Your task to perform on an android device: change your default location settings in chrome Image 0: 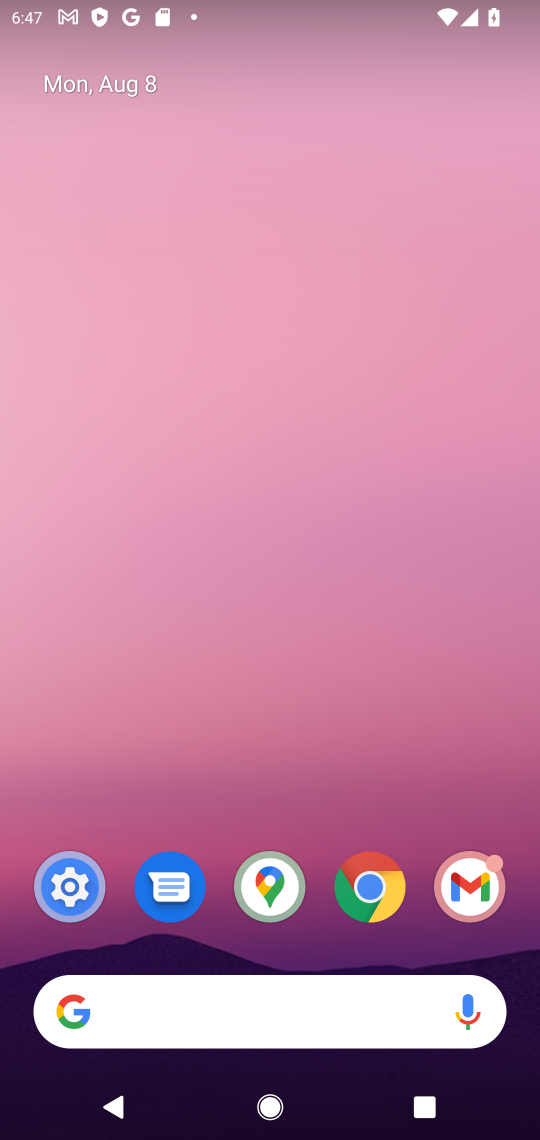
Step 0: drag from (416, 798) to (322, 83)
Your task to perform on an android device: change your default location settings in chrome Image 1: 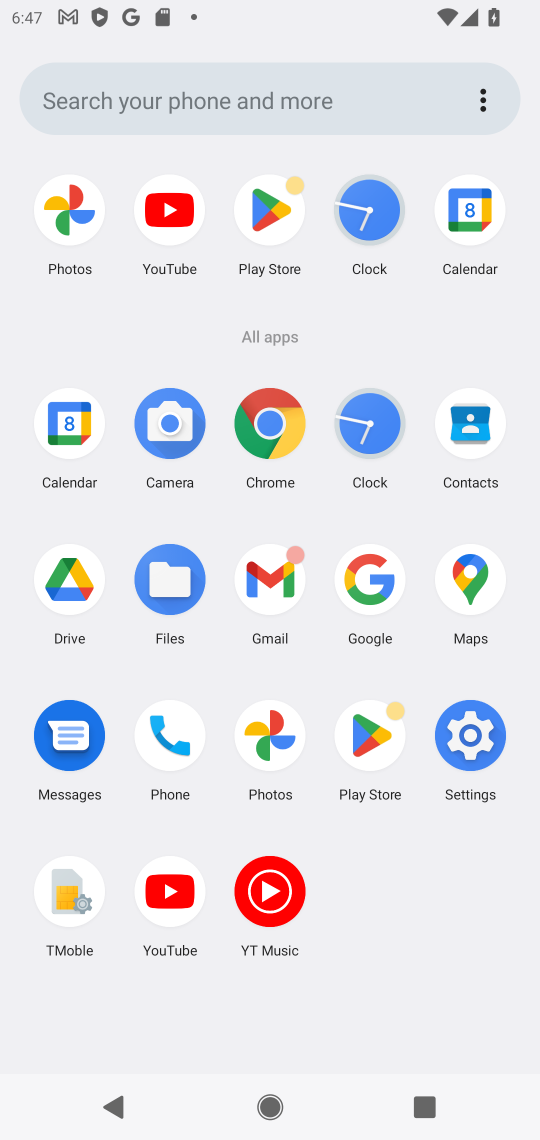
Step 1: click (270, 435)
Your task to perform on an android device: change your default location settings in chrome Image 2: 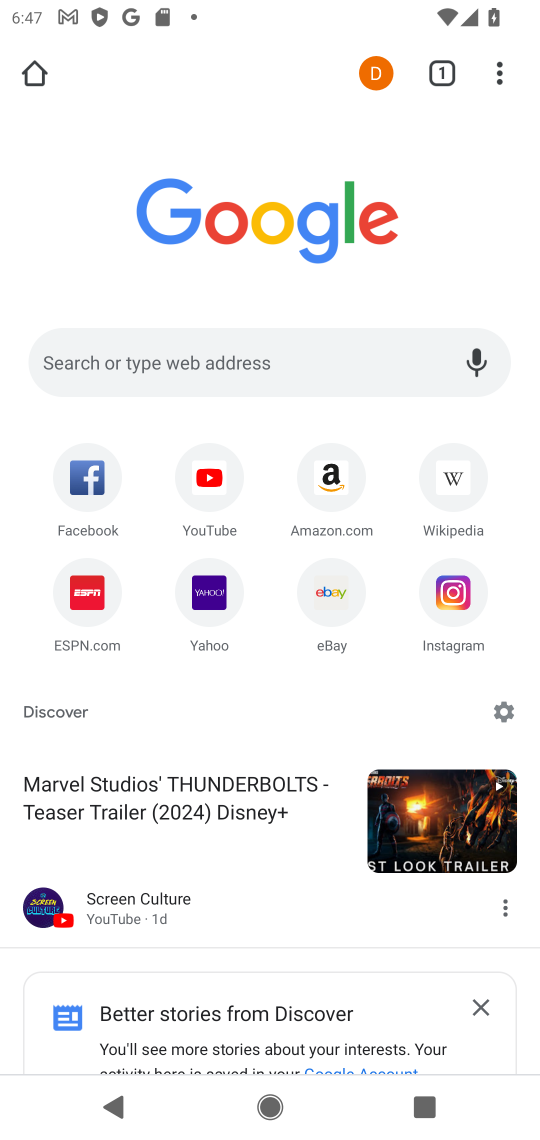
Step 2: click (484, 57)
Your task to perform on an android device: change your default location settings in chrome Image 3: 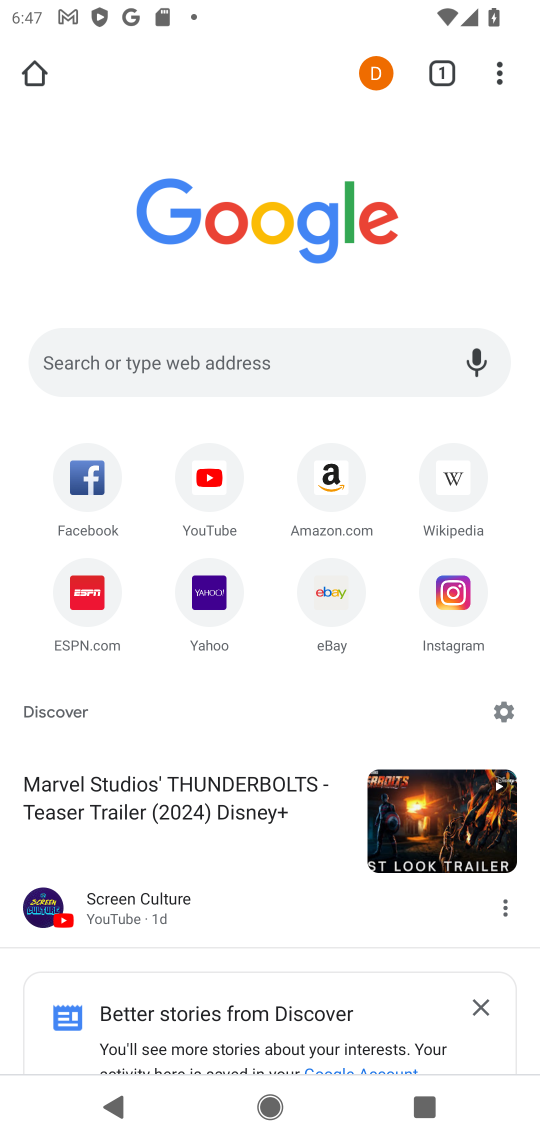
Step 3: click (484, 57)
Your task to perform on an android device: change your default location settings in chrome Image 4: 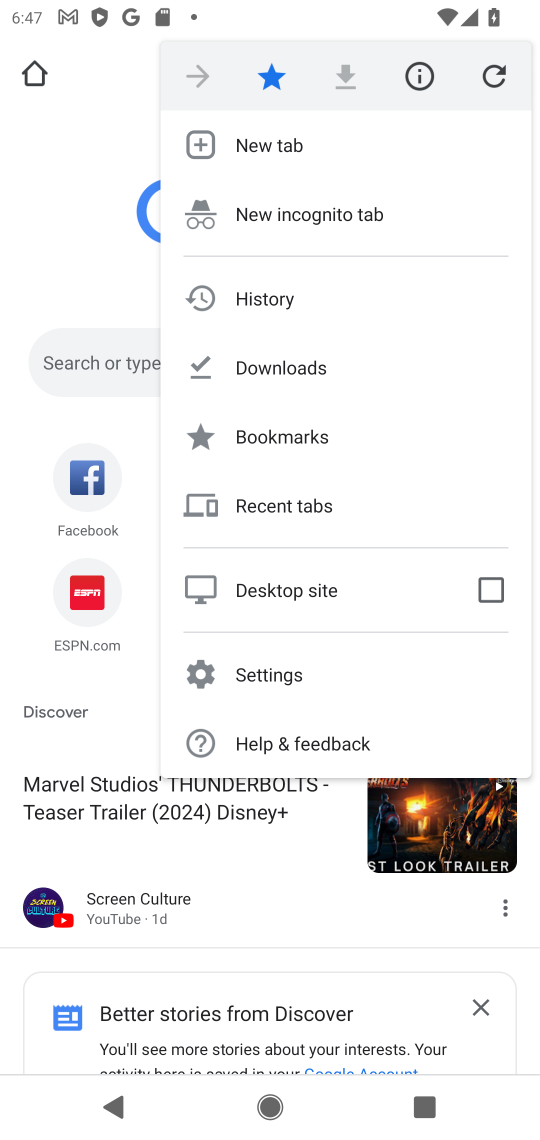
Step 4: click (311, 679)
Your task to perform on an android device: change your default location settings in chrome Image 5: 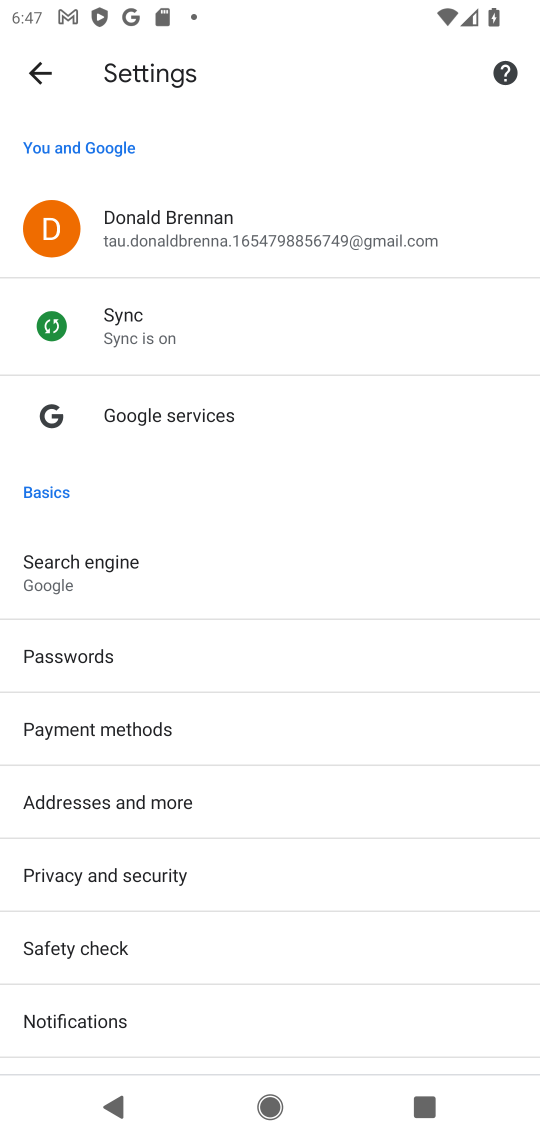
Step 5: drag from (283, 953) to (219, 420)
Your task to perform on an android device: change your default location settings in chrome Image 6: 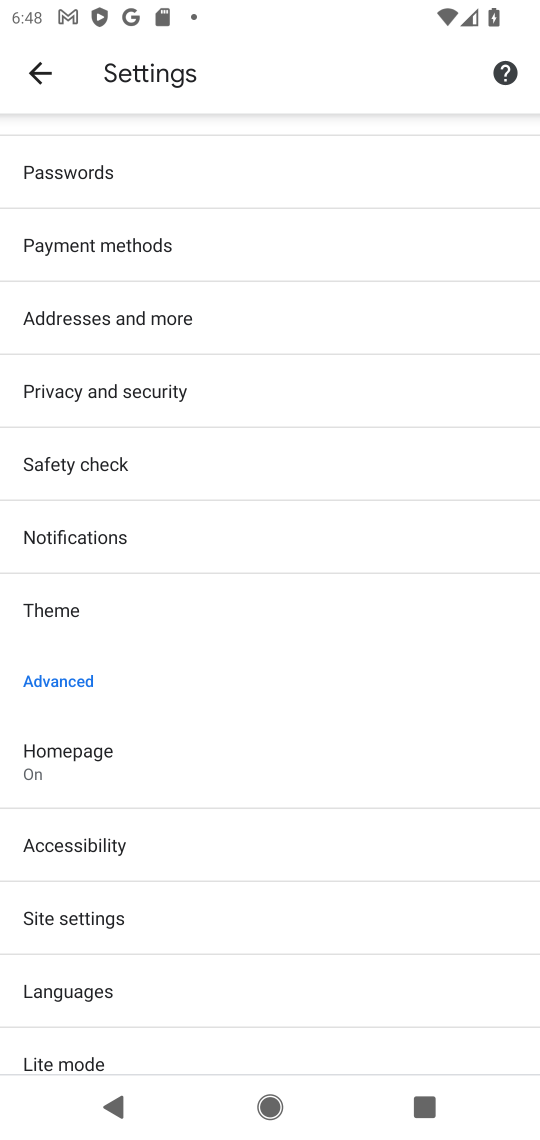
Step 6: click (239, 931)
Your task to perform on an android device: change your default location settings in chrome Image 7: 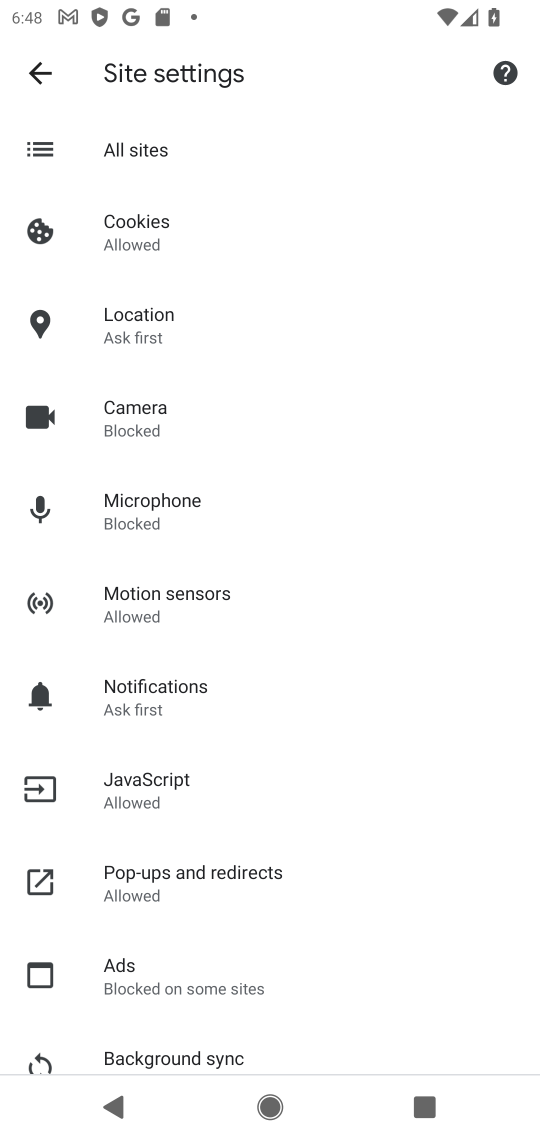
Step 7: click (161, 339)
Your task to perform on an android device: change your default location settings in chrome Image 8: 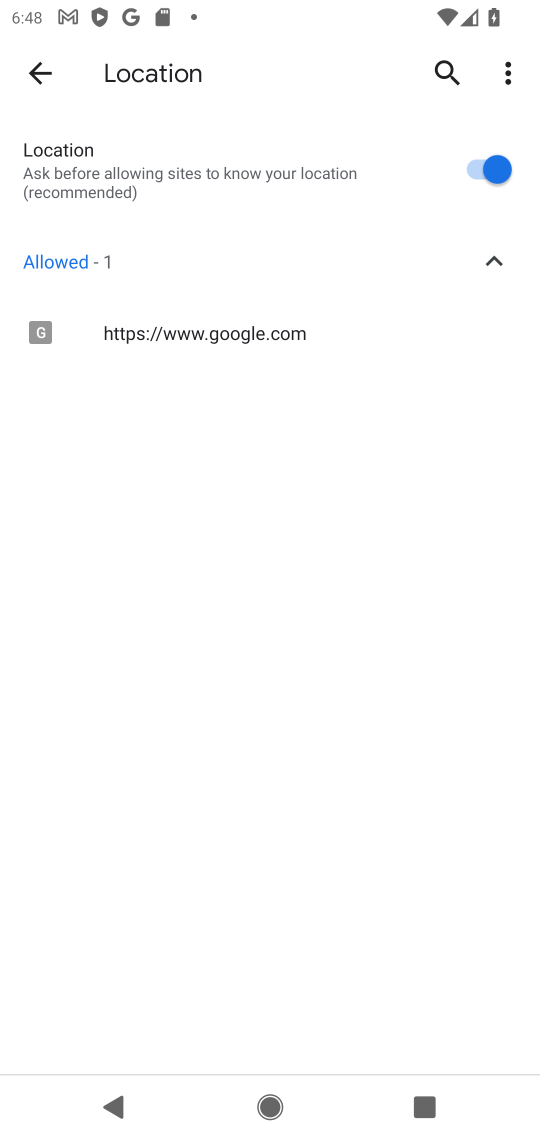
Step 8: click (505, 67)
Your task to perform on an android device: change your default location settings in chrome Image 9: 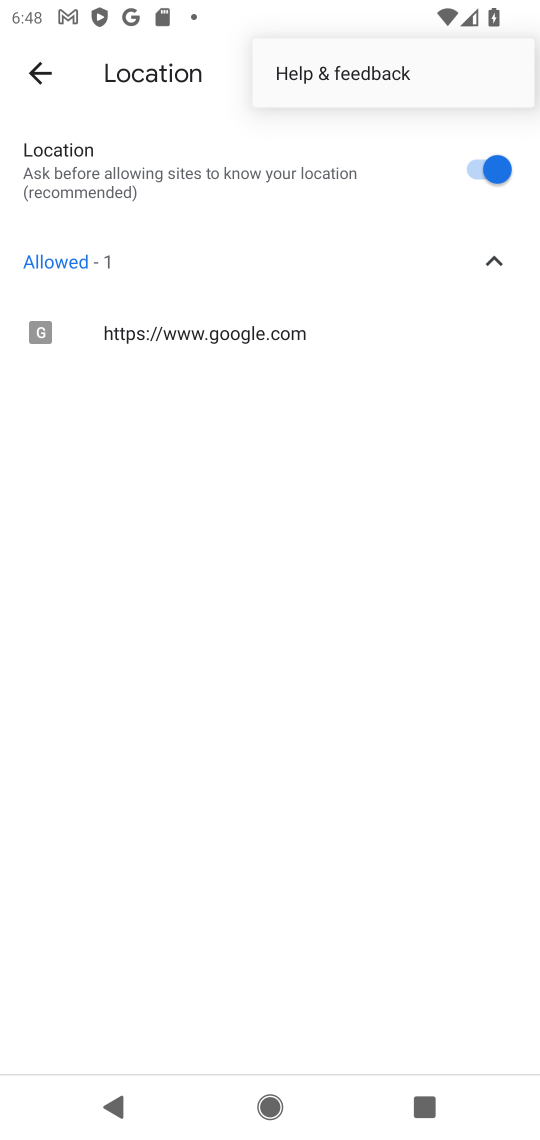
Step 9: task complete